Your task to perform on an android device: install app "Expedia: Hotels, Flights & Car" Image 0: 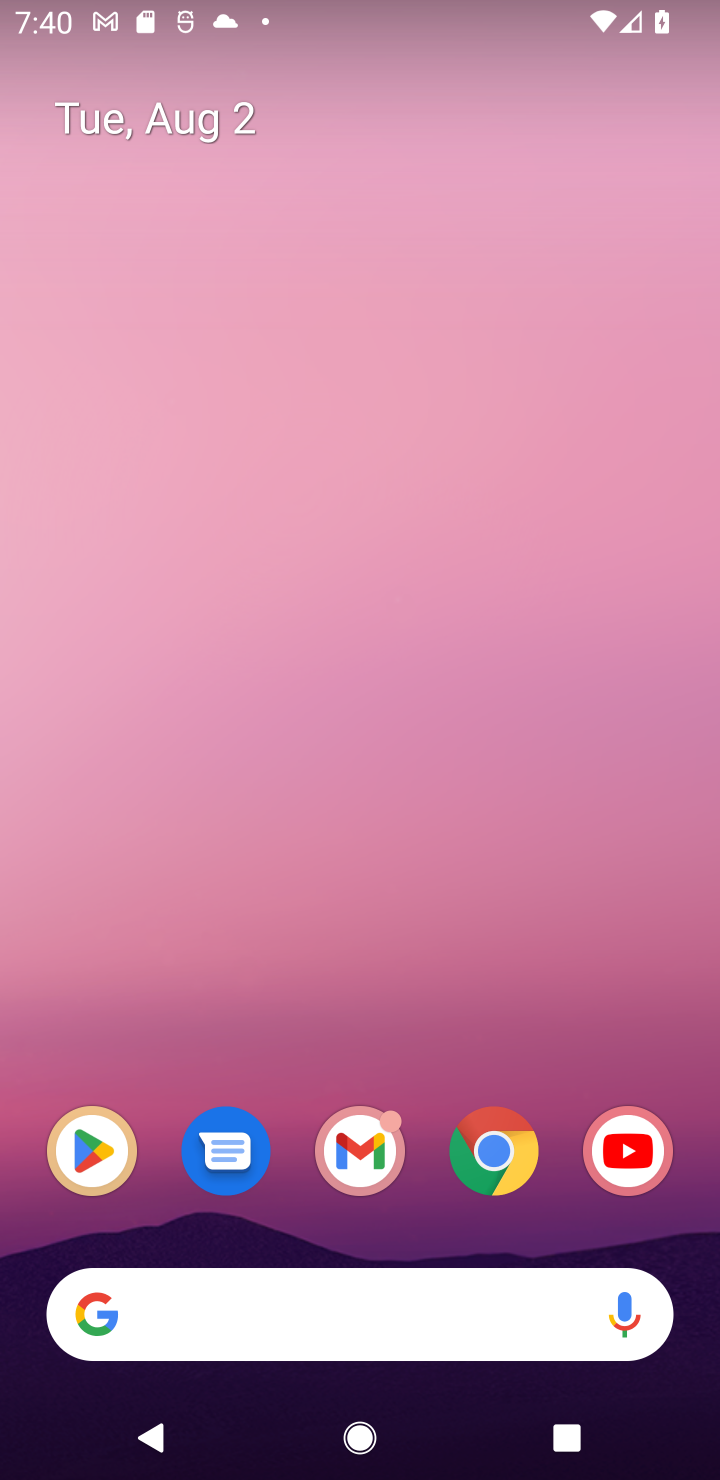
Step 0: click (84, 1168)
Your task to perform on an android device: install app "Expedia: Hotels, Flights & Car" Image 1: 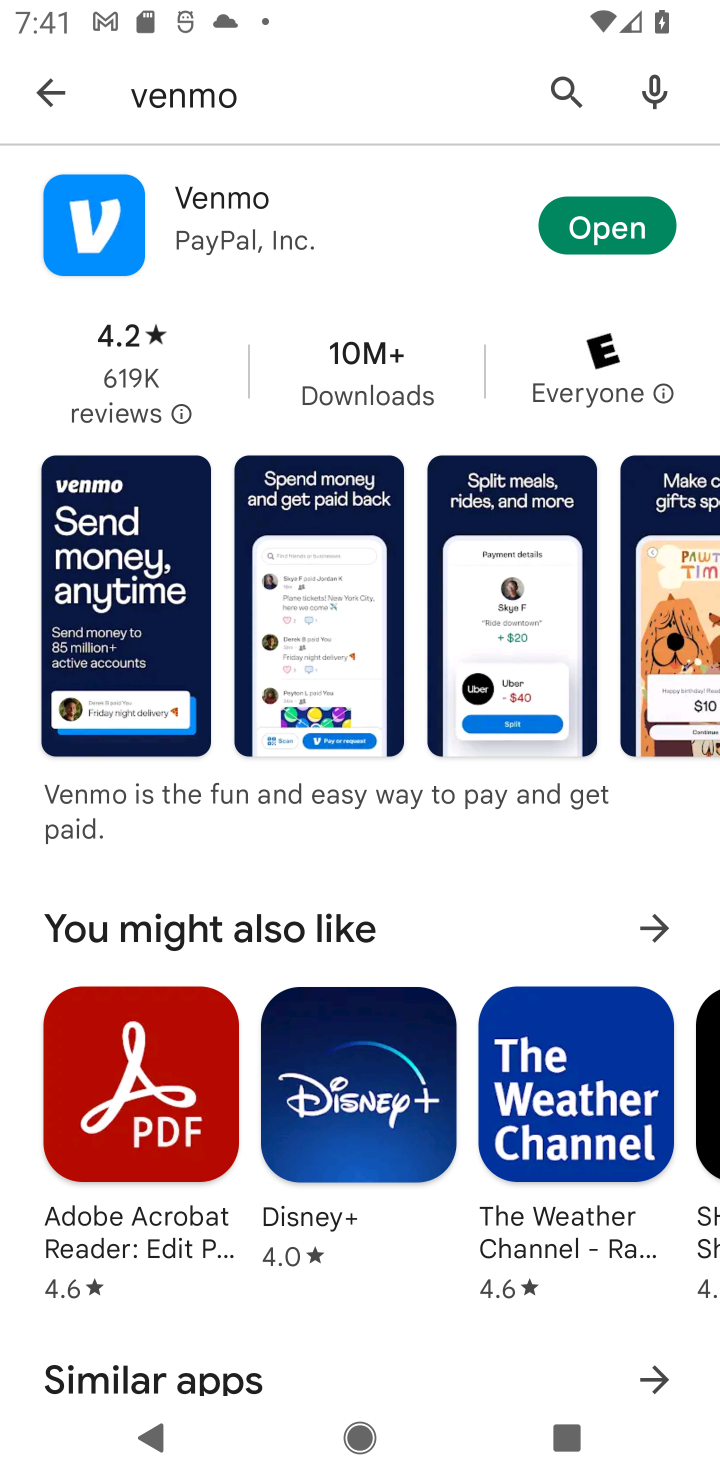
Step 1: click (563, 79)
Your task to perform on an android device: install app "Expedia: Hotels, Flights & Car" Image 2: 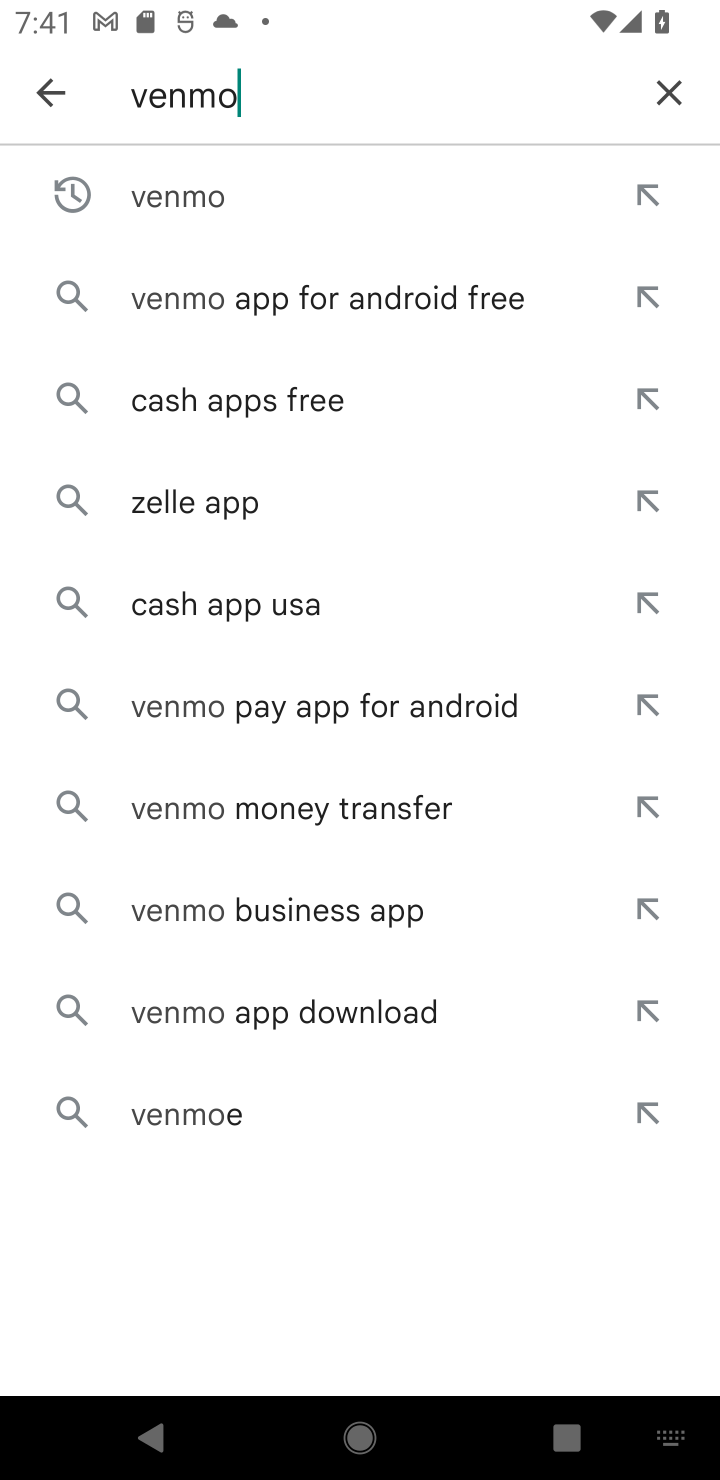
Step 2: click (671, 90)
Your task to perform on an android device: install app "Expedia: Hotels, Flights & Car" Image 3: 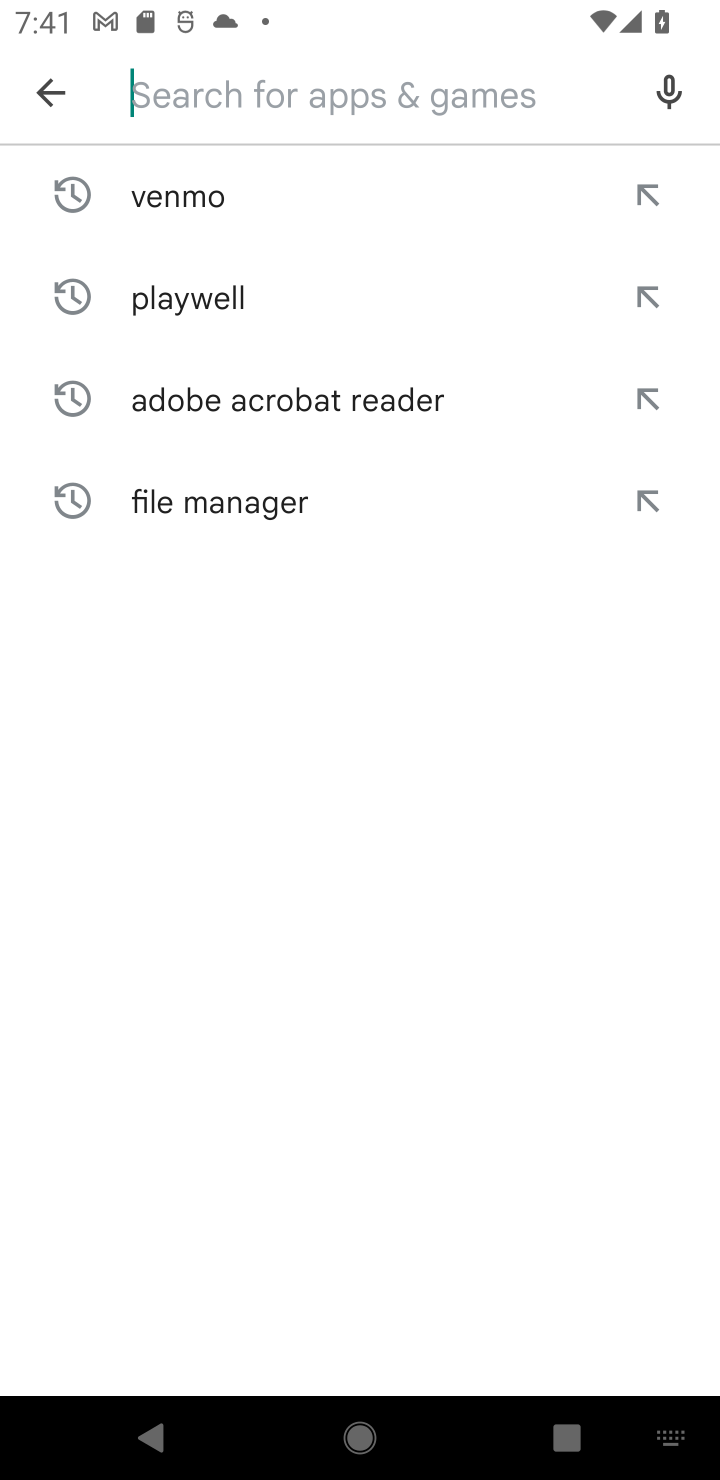
Step 3: type "Expedia: Hotels, Flights & Ca"
Your task to perform on an android device: install app "Expedia: Hotels, Flights & Car" Image 4: 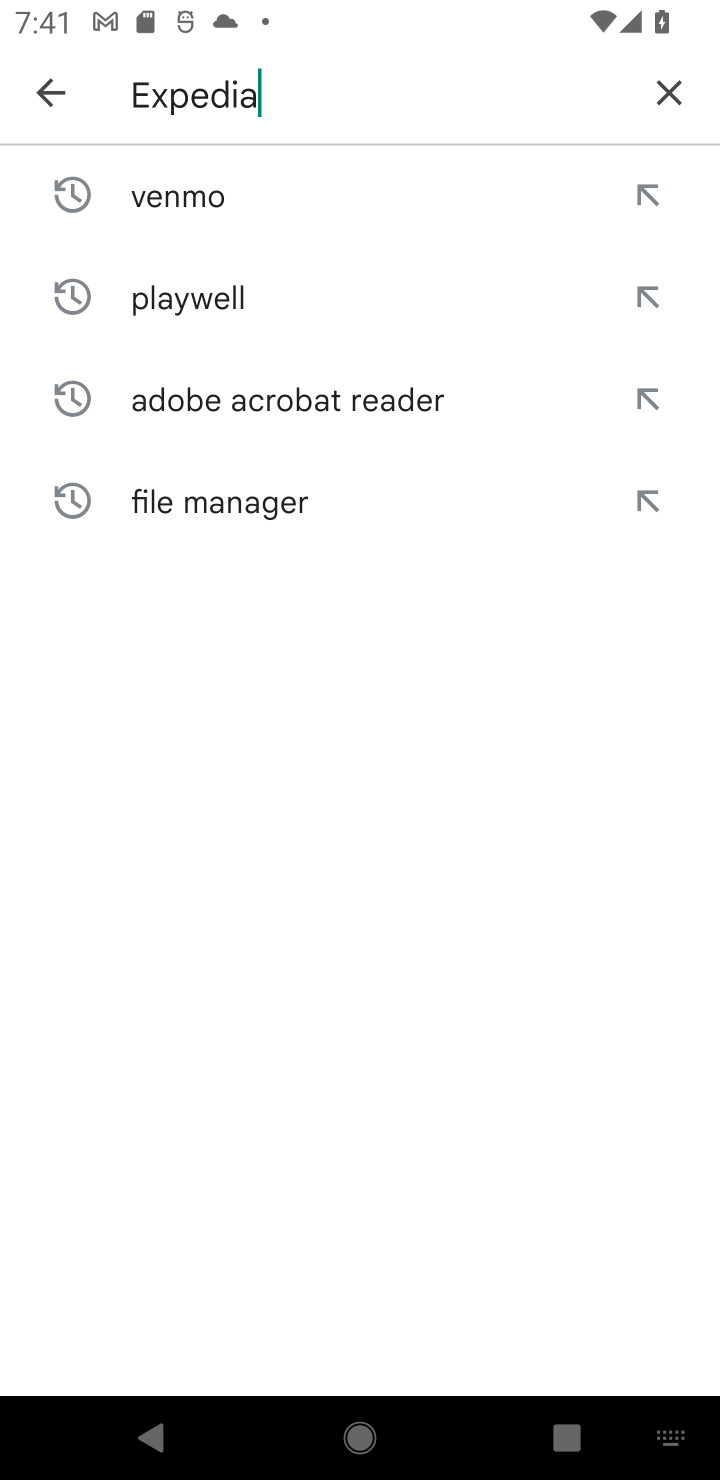
Step 4: type ""
Your task to perform on an android device: install app "Expedia: Hotels, Flights & Car" Image 5: 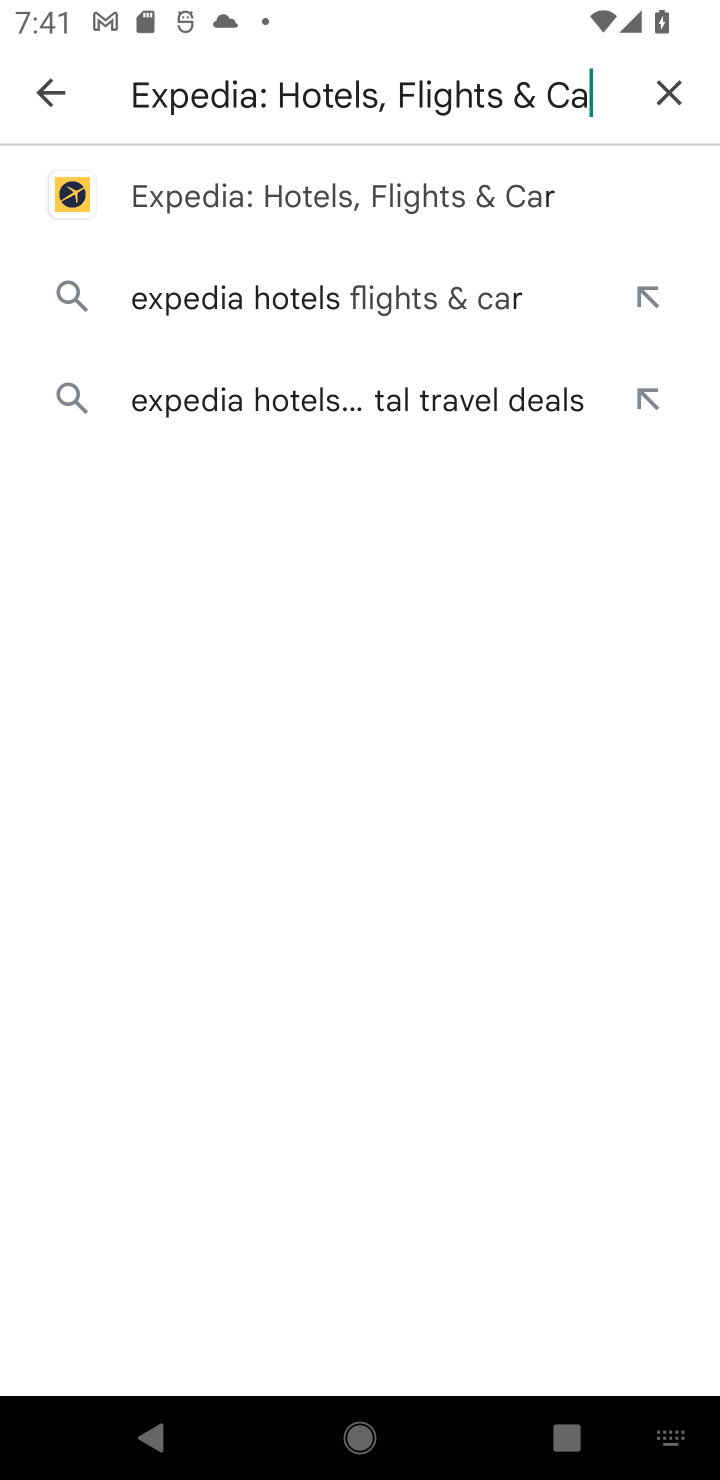
Step 5: click (231, 206)
Your task to perform on an android device: install app "Expedia: Hotels, Flights & Car" Image 6: 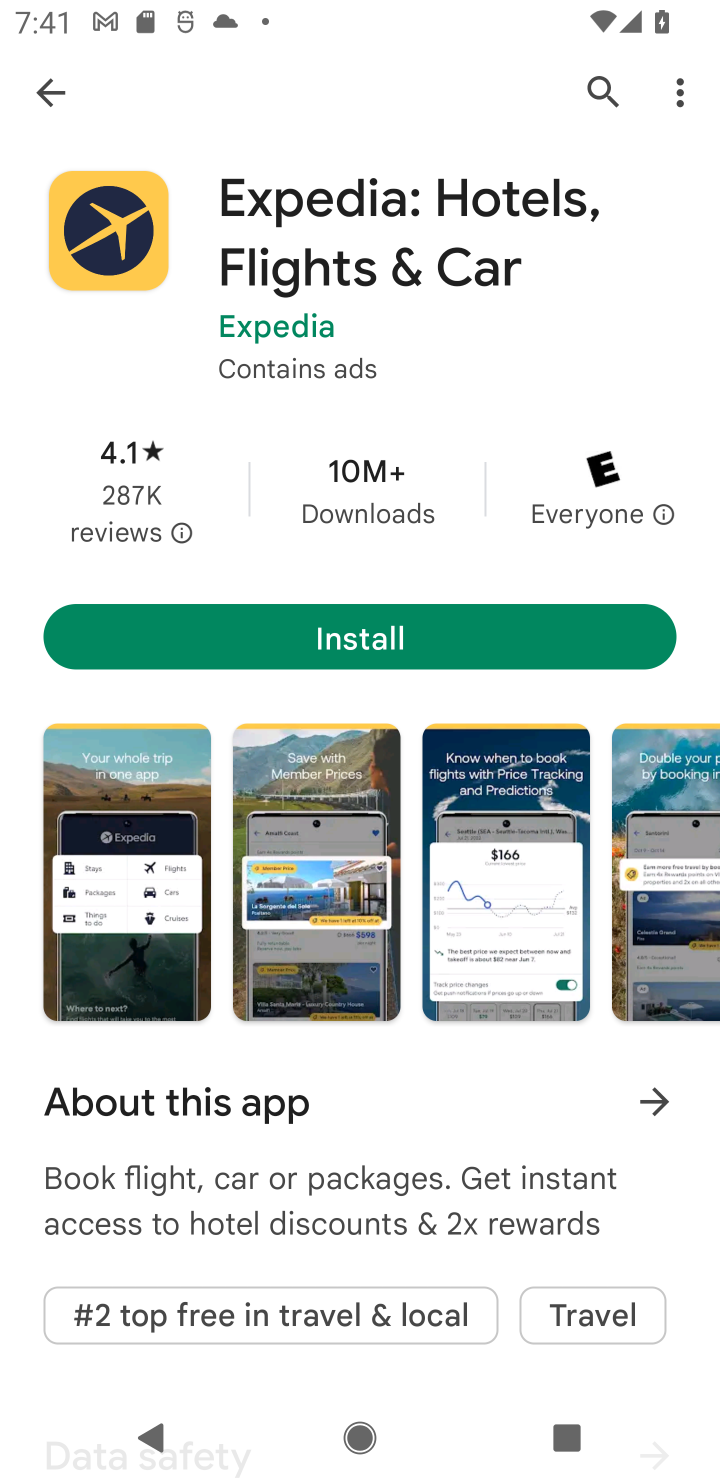
Step 6: click (299, 654)
Your task to perform on an android device: install app "Expedia: Hotels, Flights & Car" Image 7: 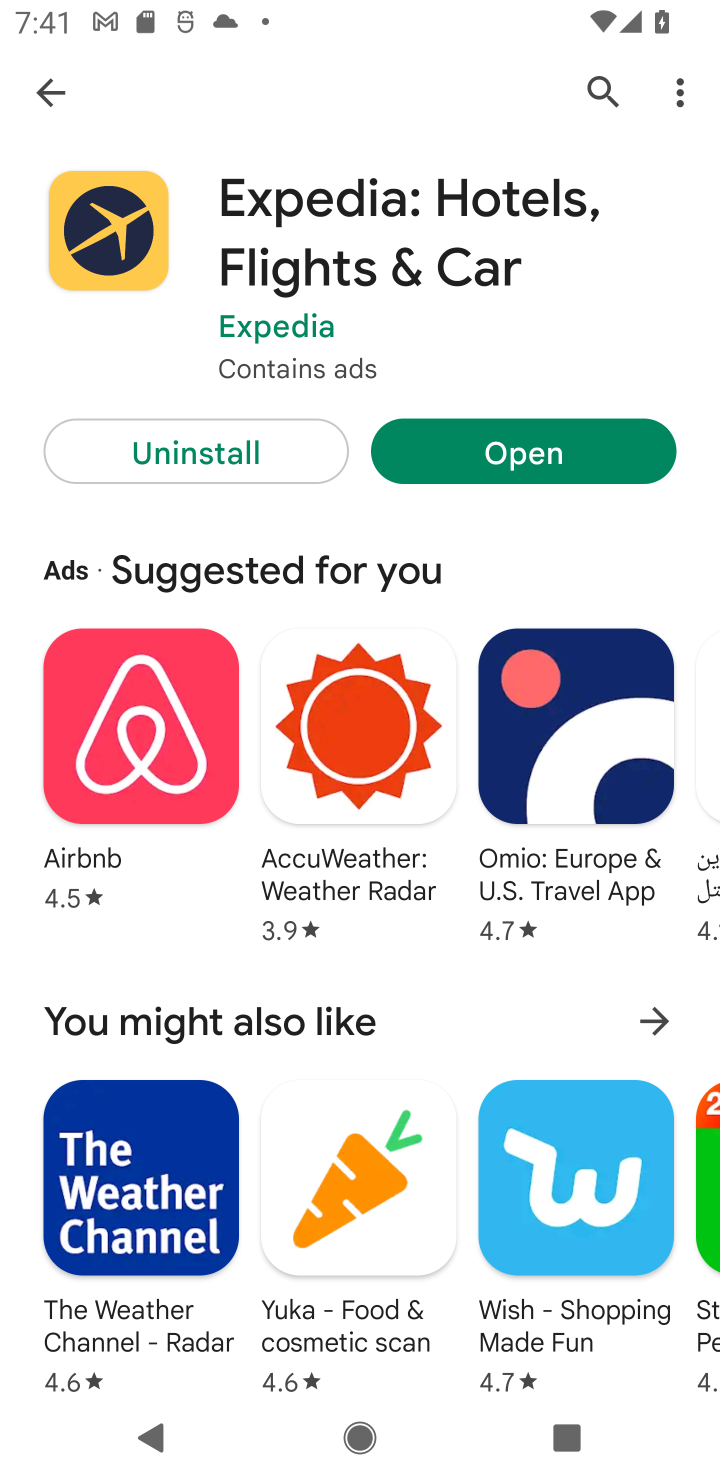
Step 7: task complete